Your task to perform on an android device: add a contact in the contacts app Image 0: 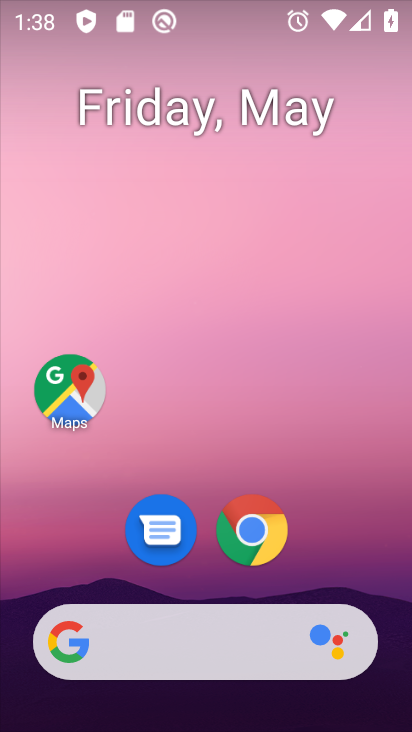
Step 0: drag from (334, 563) to (296, 38)
Your task to perform on an android device: add a contact in the contacts app Image 1: 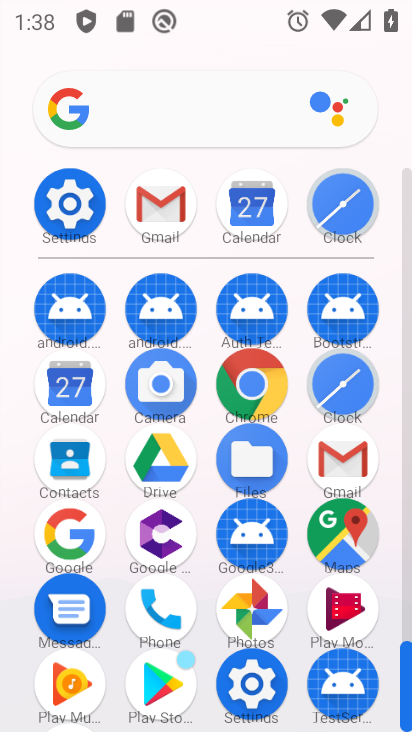
Step 1: click (66, 454)
Your task to perform on an android device: add a contact in the contacts app Image 2: 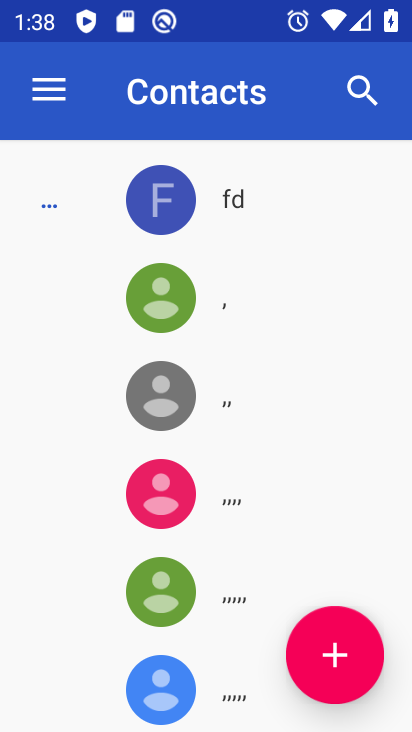
Step 2: click (338, 652)
Your task to perform on an android device: add a contact in the contacts app Image 3: 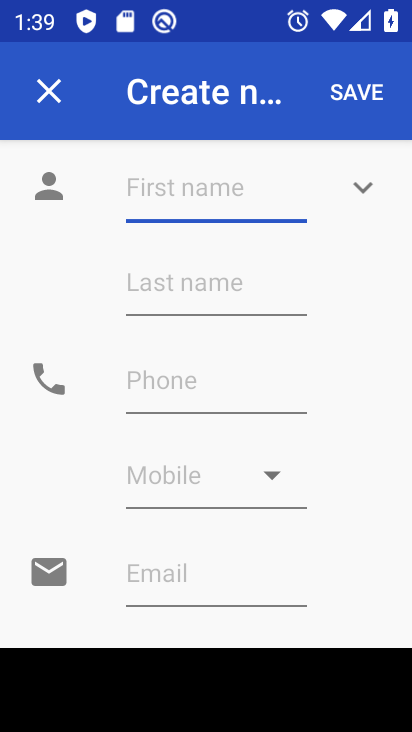
Step 3: type "tredfgyh"
Your task to perform on an android device: add a contact in the contacts app Image 4: 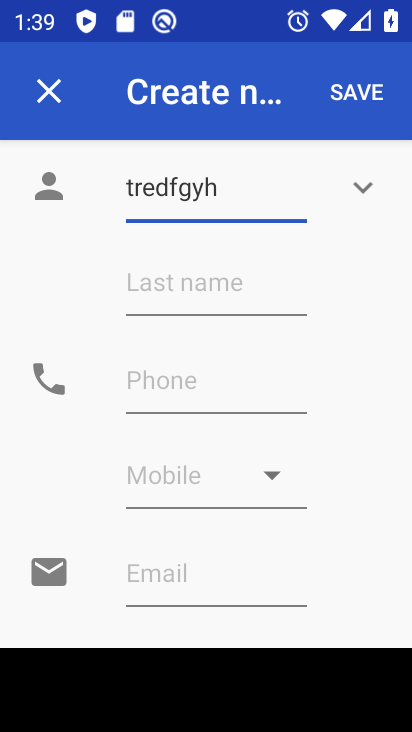
Step 4: click (171, 376)
Your task to perform on an android device: add a contact in the contacts app Image 5: 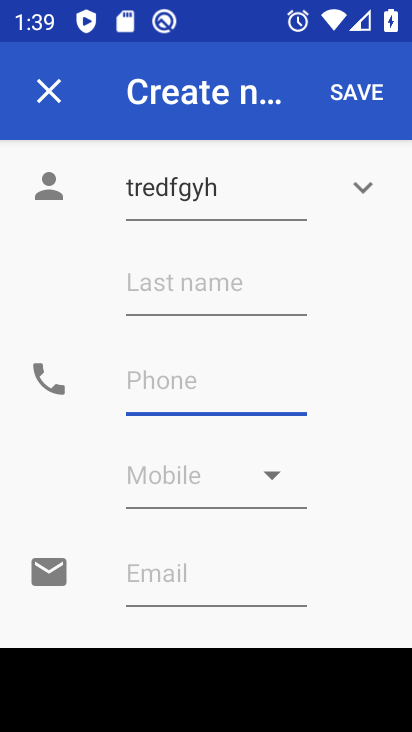
Step 5: type "9870654321"
Your task to perform on an android device: add a contact in the contacts app Image 6: 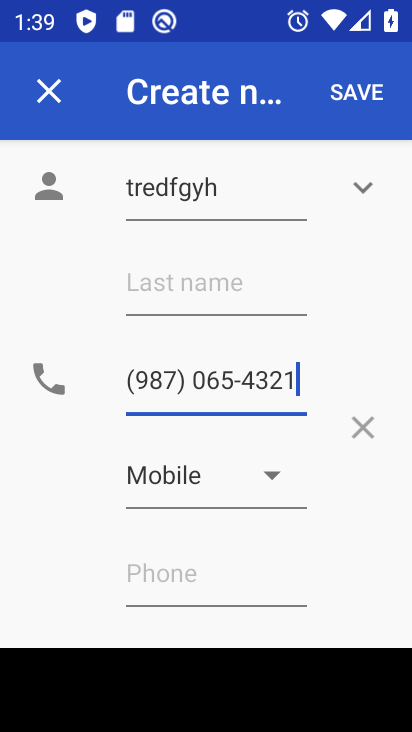
Step 6: click (336, 81)
Your task to perform on an android device: add a contact in the contacts app Image 7: 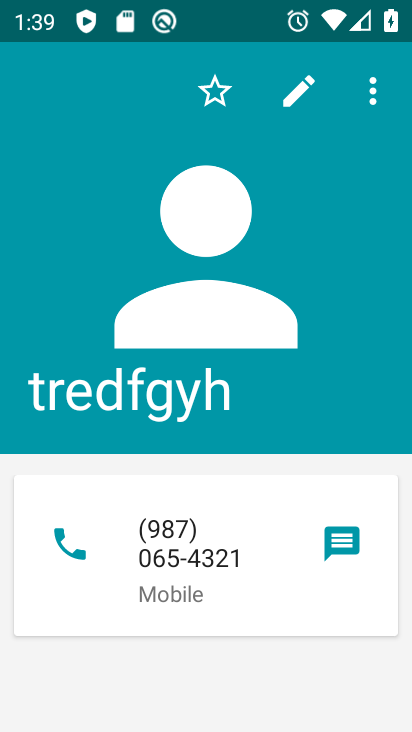
Step 7: task complete